Your task to perform on an android device: add a contact in the contacts app Image 0: 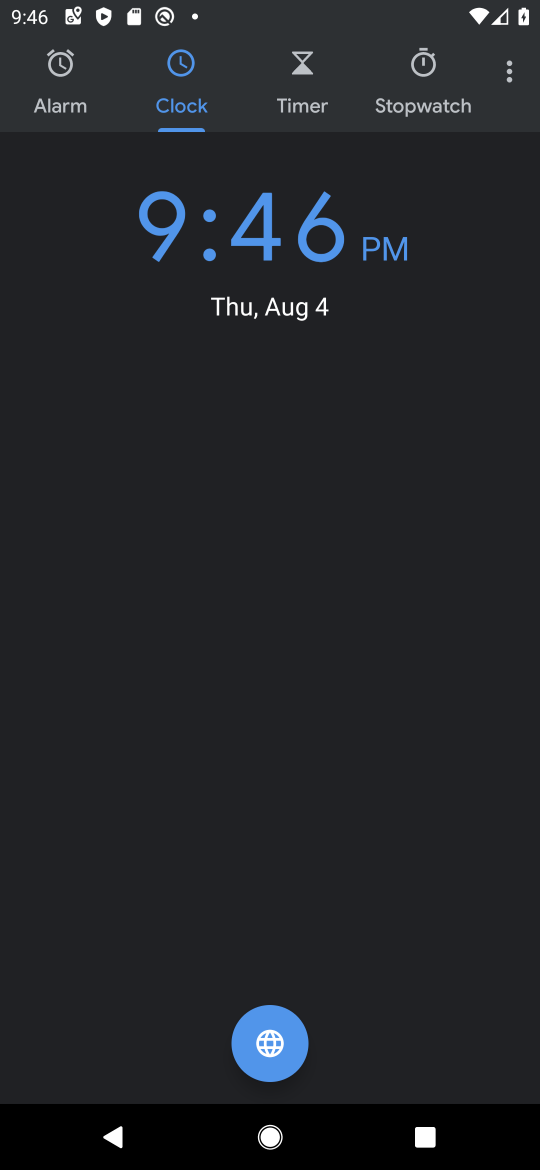
Step 0: press home button
Your task to perform on an android device: add a contact in the contacts app Image 1: 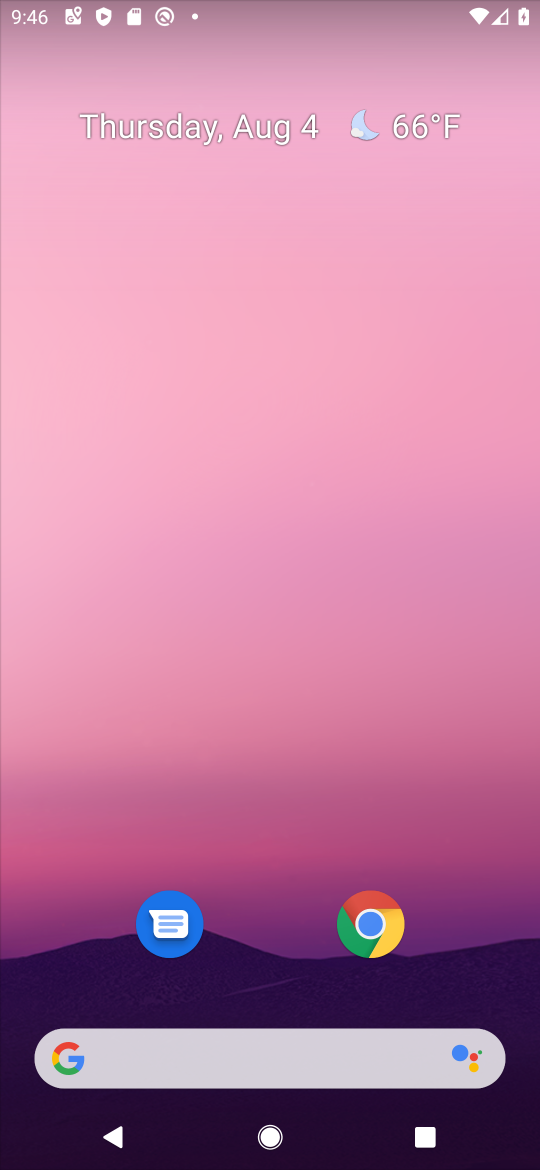
Step 1: drag from (266, 859) to (250, 428)
Your task to perform on an android device: add a contact in the contacts app Image 2: 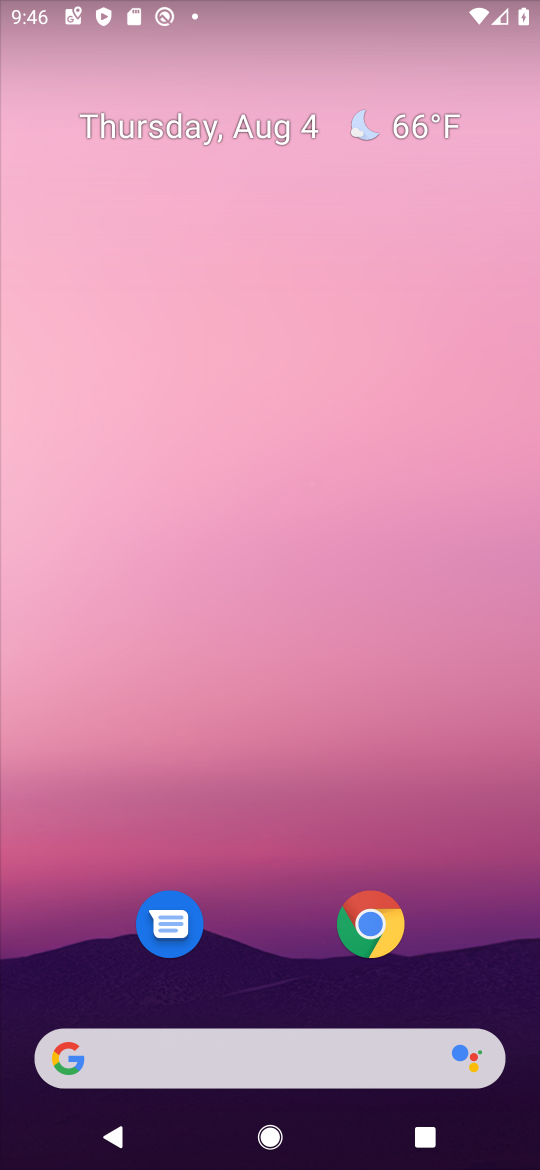
Step 2: drag from (280, 888) to (337, 384)
Your task to perform on an android device: add a contact in the contacts app Image 3: 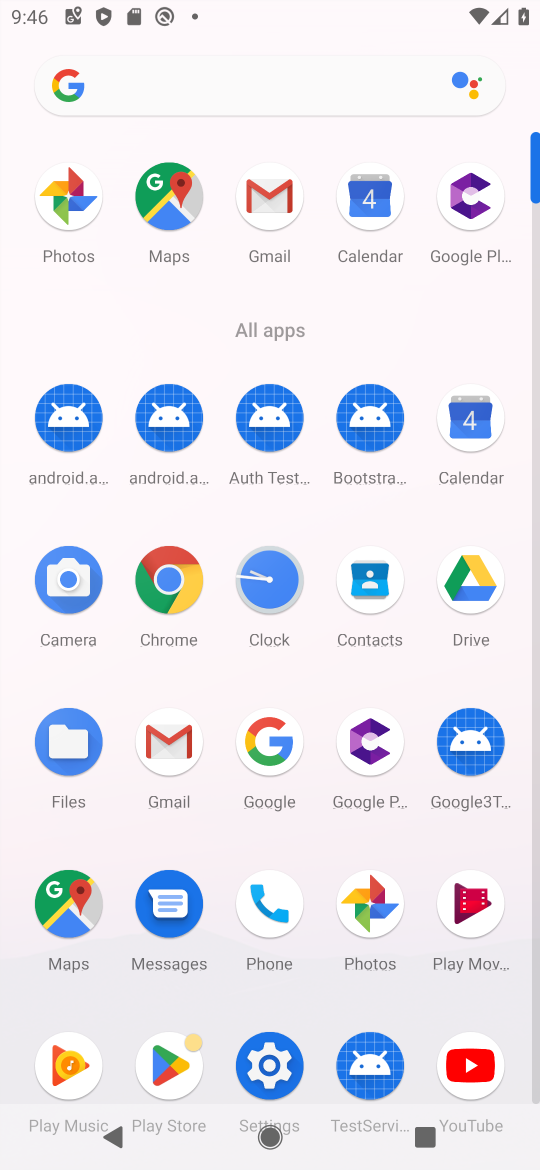
Step 3: click (375, 600)
Your task to perform on an android device: add a contact in the contacts app Image 4: 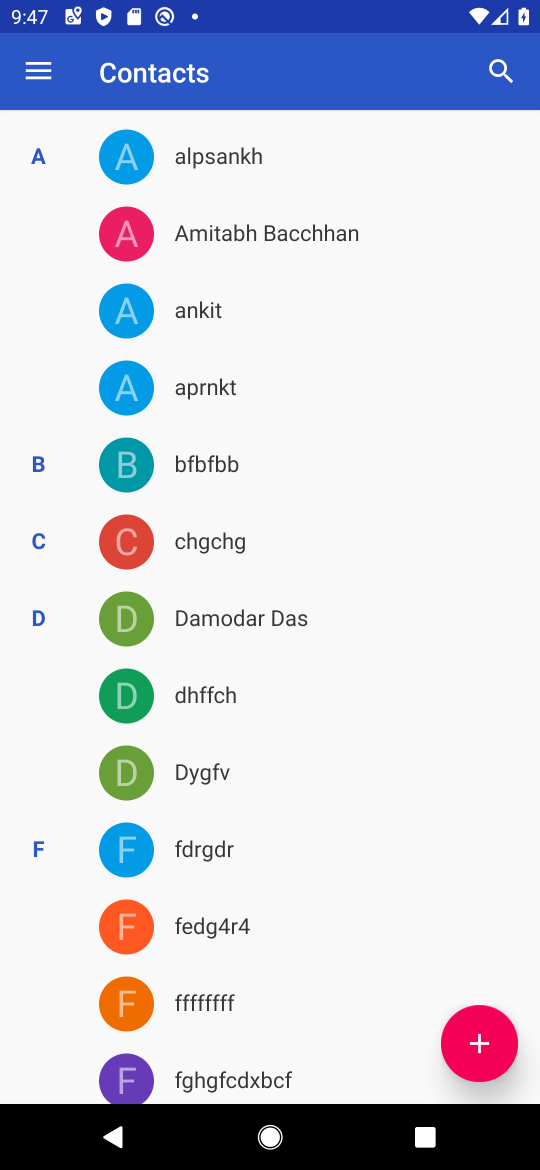
Step 4: click (488, 1049)
Your task to perform on an android device: add a contact in the contacts app Image 5: 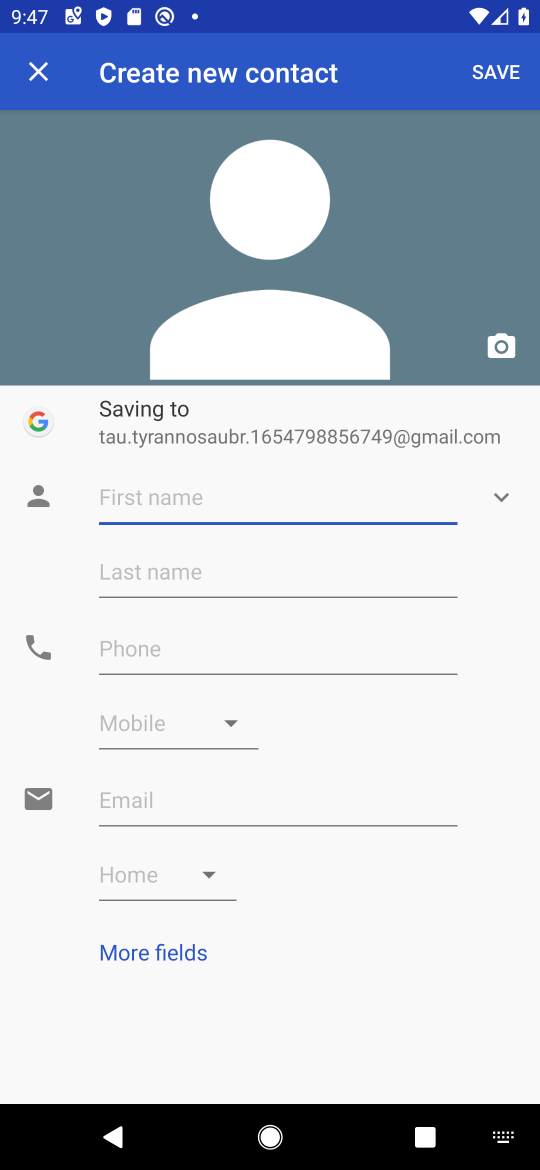
Step 5: type "xcz"
Your task to perform on an android device: add a contact in the contacts app Image 6: 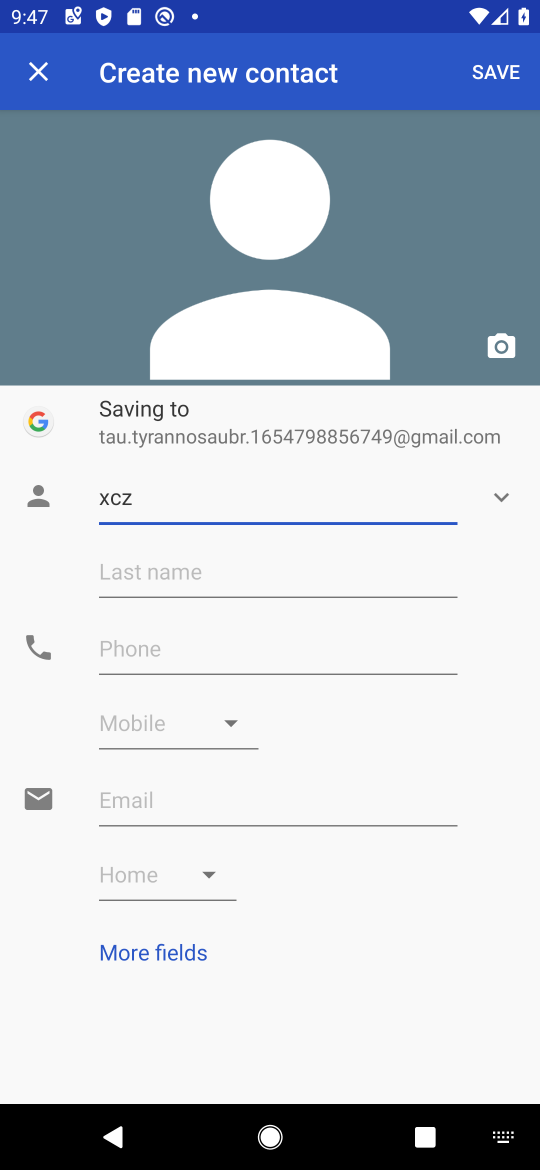
Step 6: click (181, 654)
Your task to perform on an android device: add a contact in the contacts app Image 7: 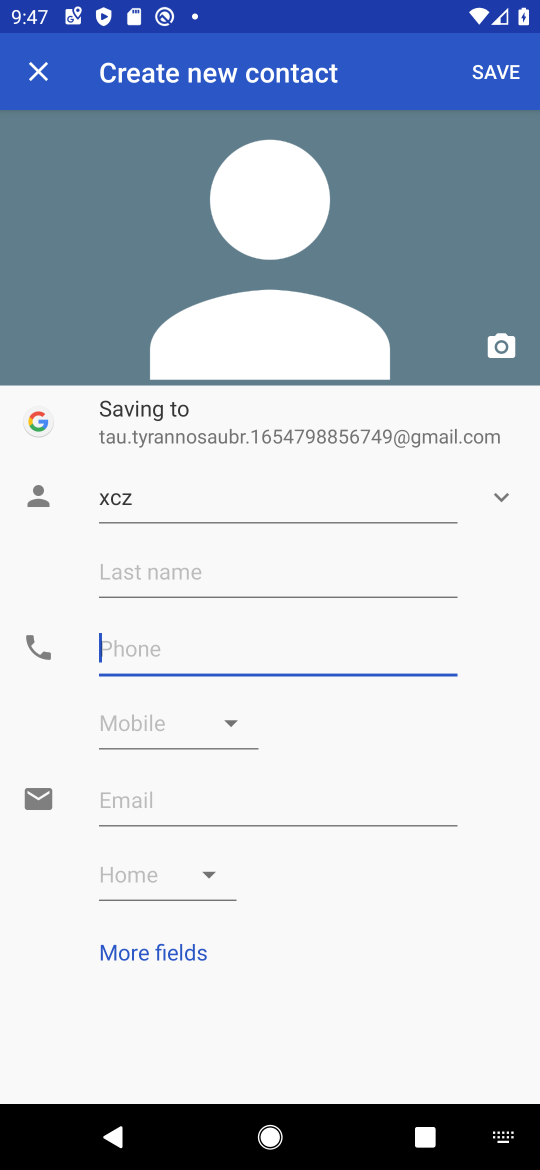
Step 7: type "3414"
Your task to perform on an android device: add a contact in the contacts app Image 8: 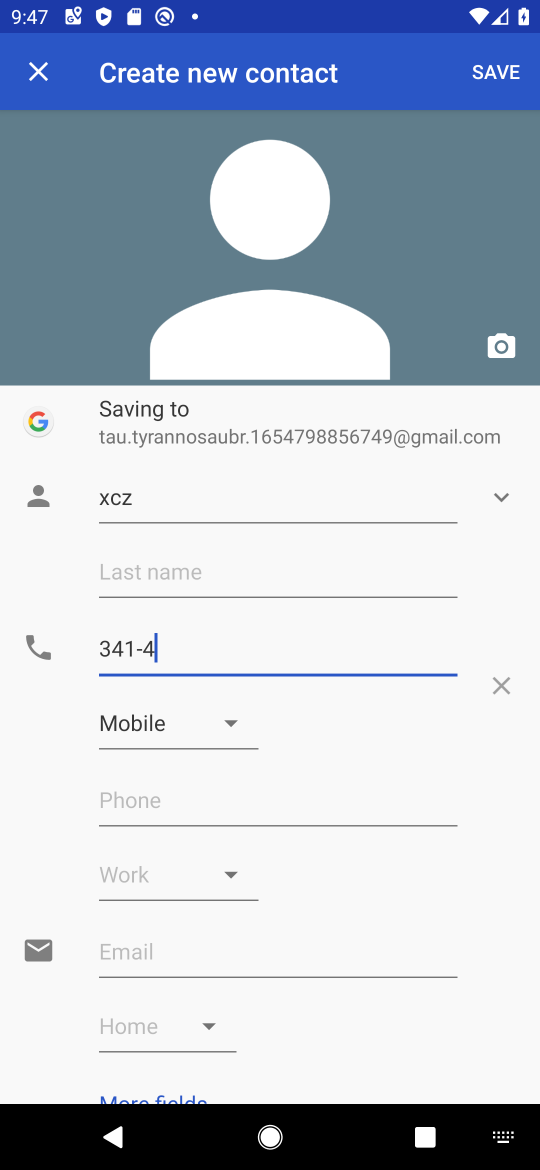
Step 8: press enter
Your task to perform on an android device: add a contact in the contacts app Image 9: 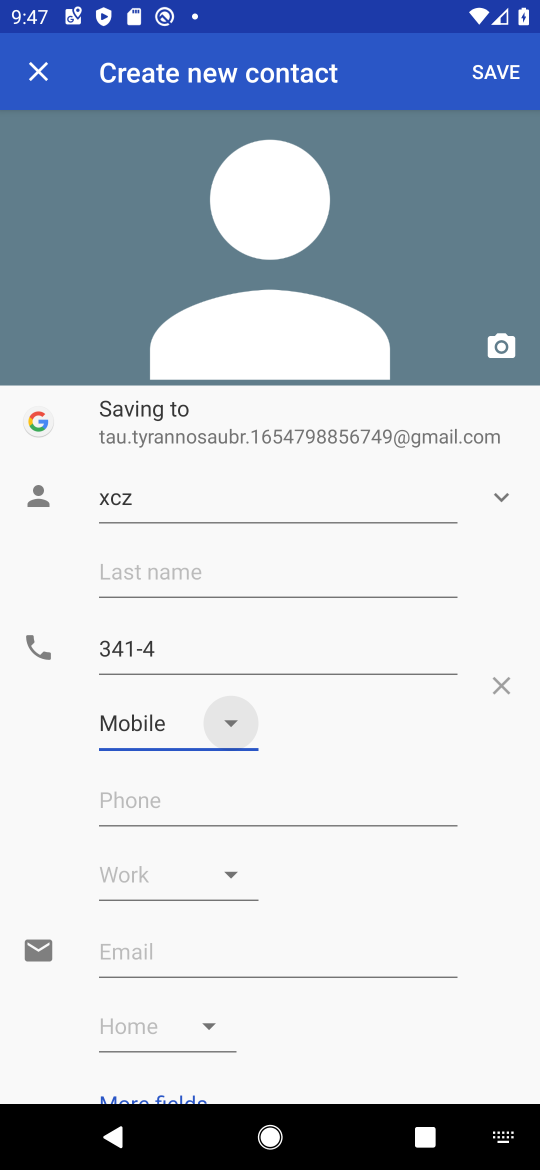
Step 9: click (495, 65)
Your task to perform on an android device: add a contact in the contacts app Image 10: 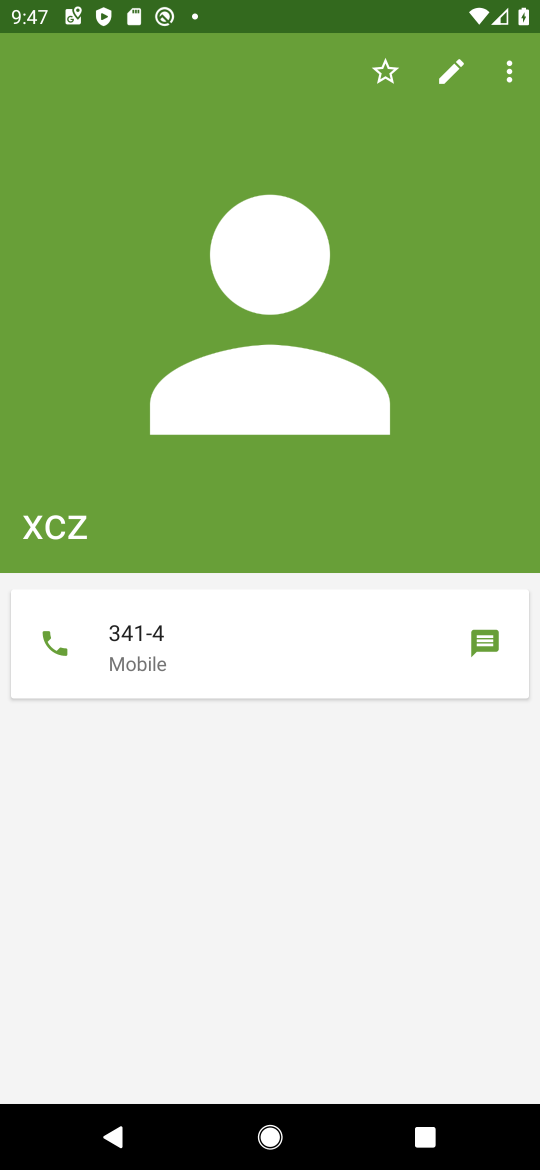
Step 10: task complete